Your task to perform on an android device: What's the weather? Image 0: 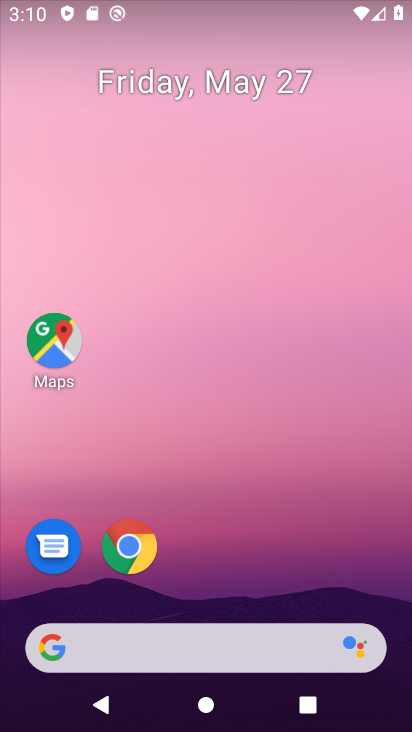
Step 0: drag from (3, 260) to (408, 249)
Your task to perform on an android device: What's the weather? Image 1: 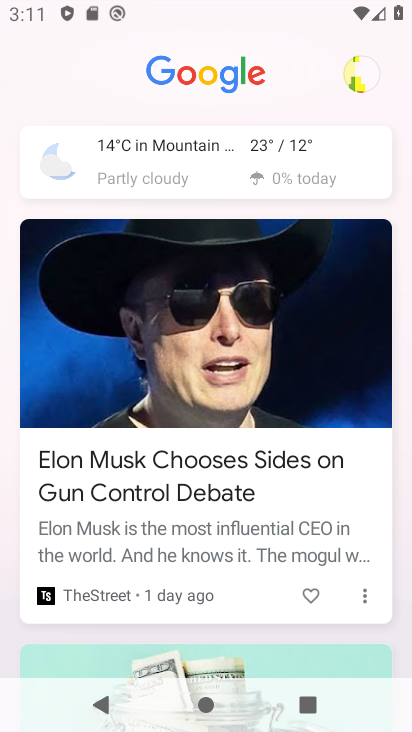
Step 1: click (251, 173)
Your task to perform on an android device: What's the weather? Image 2: 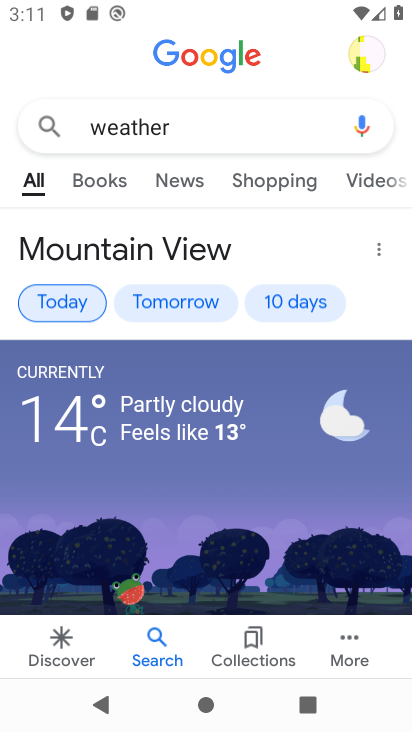
Step 2: task complete